Your task to perform on an android device: Go to accessibility settings Image 0: 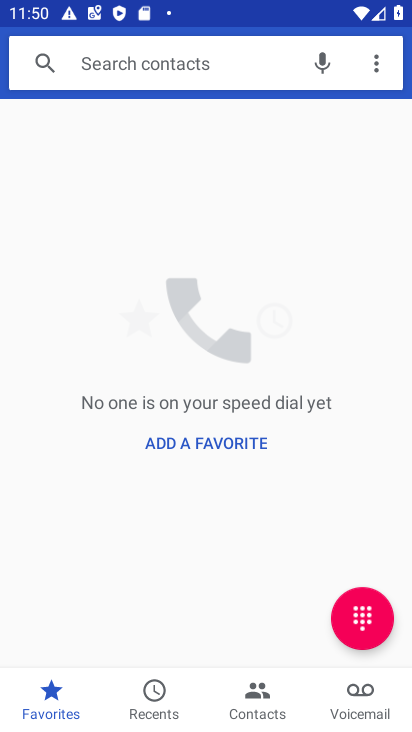
Step 0: press home button
Your task to perform on an android device: Go to accessibility settings Image 1: 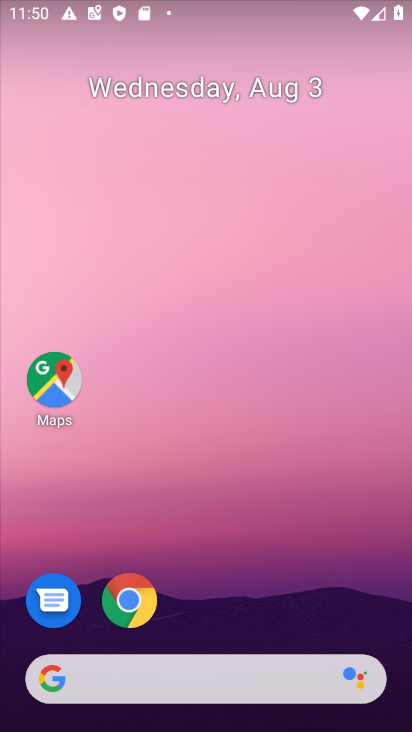
Step 1: drag from (251, 663) to (332, 137)
Your task to perform on an android device: Go to accessibility settings Image 2: 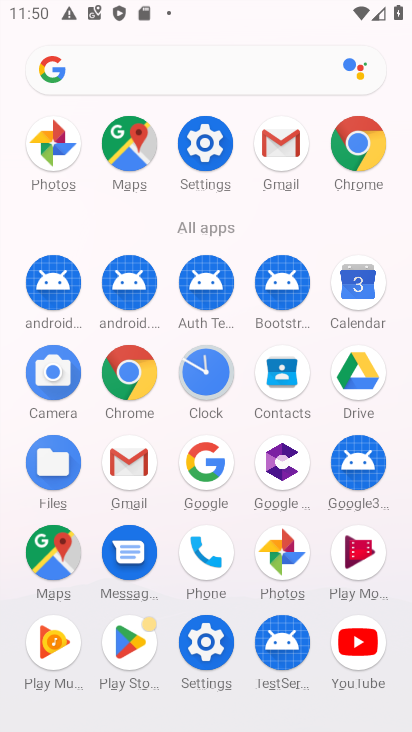
Step 2: click (205, 149)
Your task to perform on an android device: Go to accessibility settings Image 3: 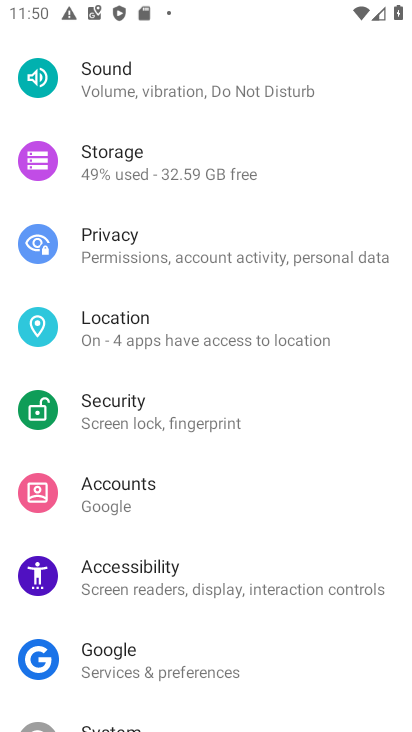
Step 3: click (124, 575)
Your task to perform on an android device: Go to accessibility settings Image 4: 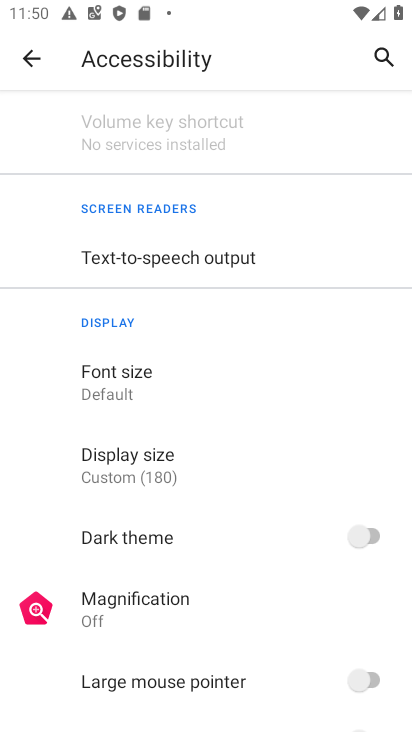
Step 4: task complete